Your task to perform on an android device: Find coffee shops on Maps Image 0: 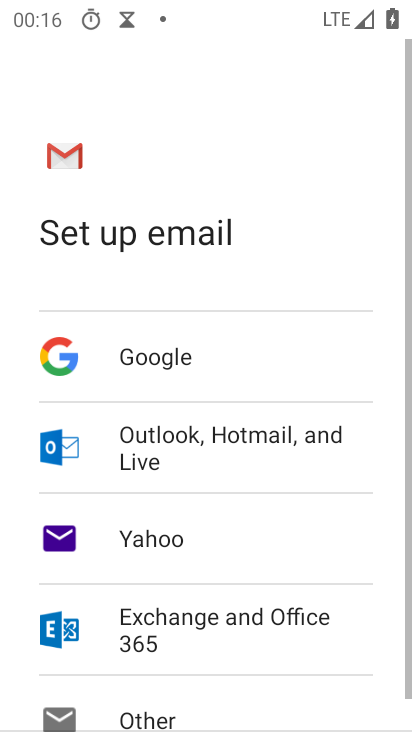
Step 0: press home button
Your task to perform on an android device: Find coffee shops on Maps Image 1: 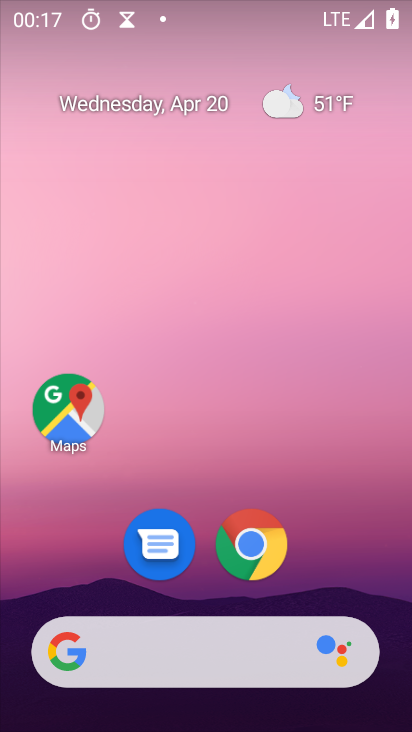
Step 1: drag from (323, 564) to (352, 157)
Your task to perform on an android device: Find coffee shops on Maps Image 2: 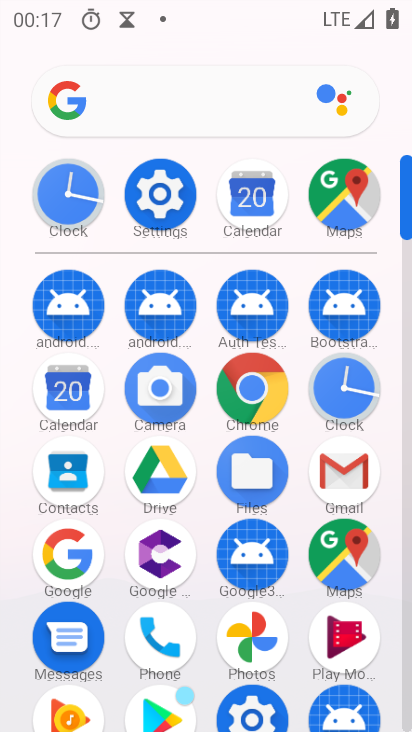
Step 2: click (347, 212)
Your task to perform on an android device: Find coffee shops on Maps Image 3: 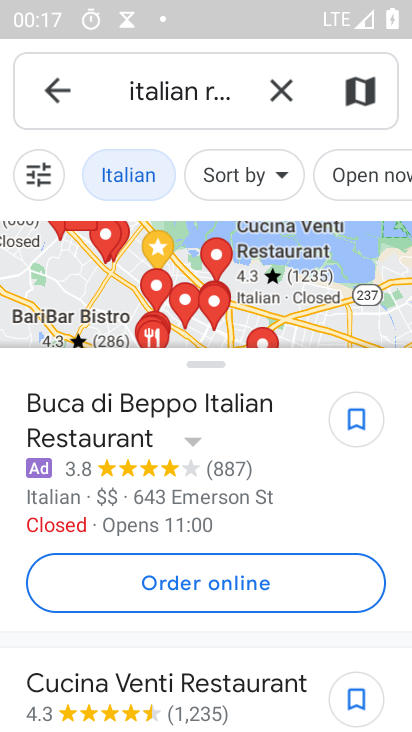
Step 3: click (279, 97)
Your task to perform on an android device: Find coffee shops on Maps Image 4: 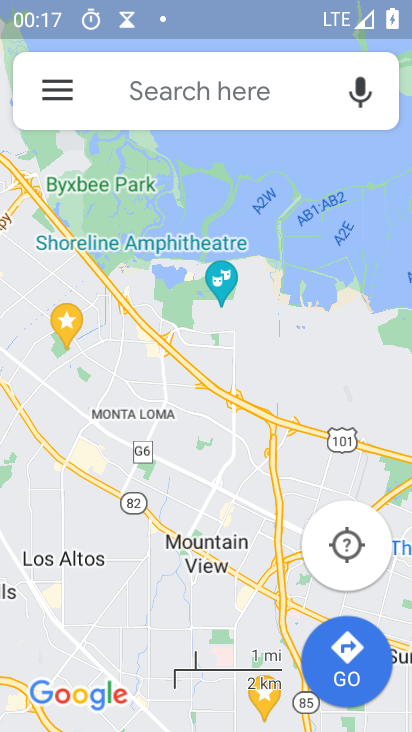
Step 4: click (218, 92)
Your task to perform on an android device: Find coffee shops on Maps Image 5: 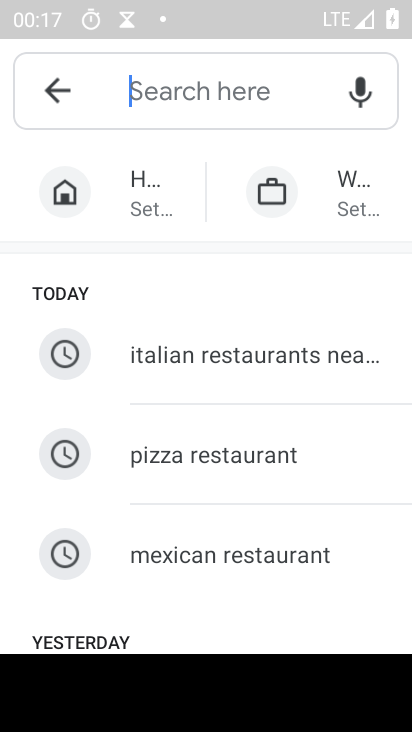
Step 5: type "coffee shops "
Your task to perform on an android device: Find coffee shops on Maps Image 6: 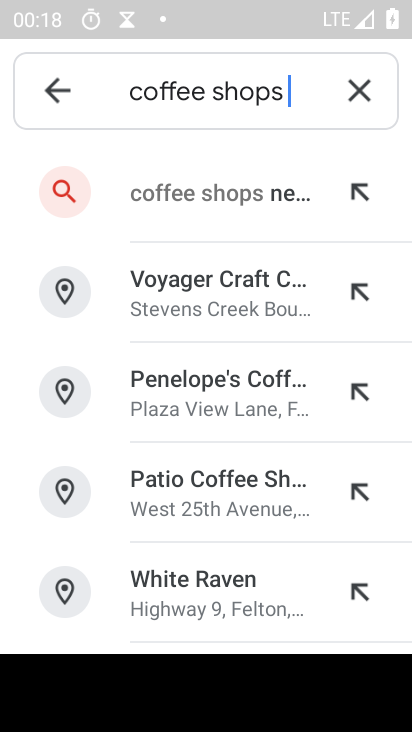
Step 6: click (142, 203)
Your task to perform on an android device: Find coffee shops on Maps Image 7: 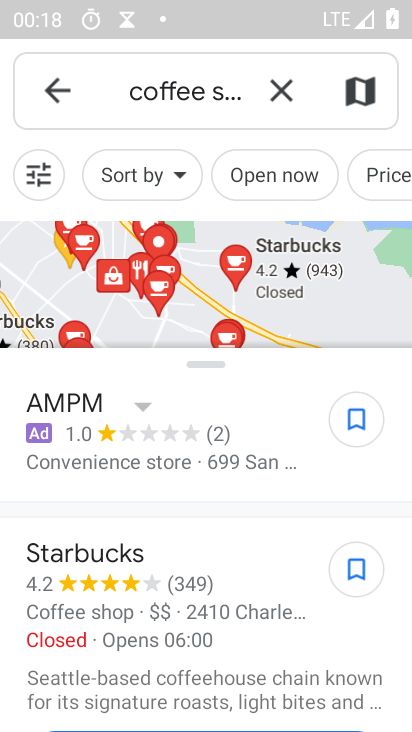
Step 7: task complete